Your task to perform on an android device: Find coffee shops on Maps Image 0: 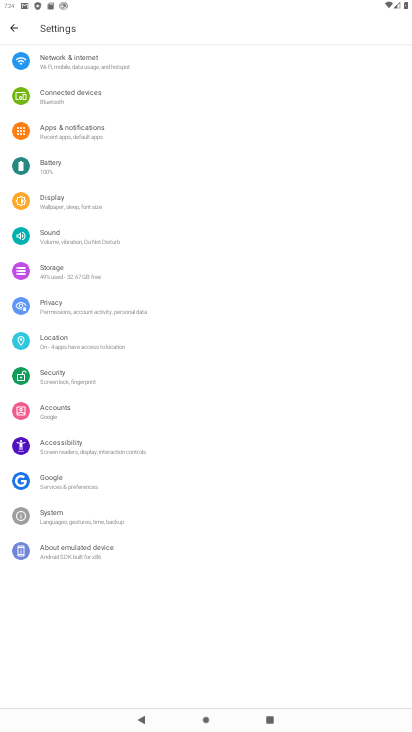
Step 0: press home button
Your task to perform on an android device: Find coffee shops on Maps Image 1: 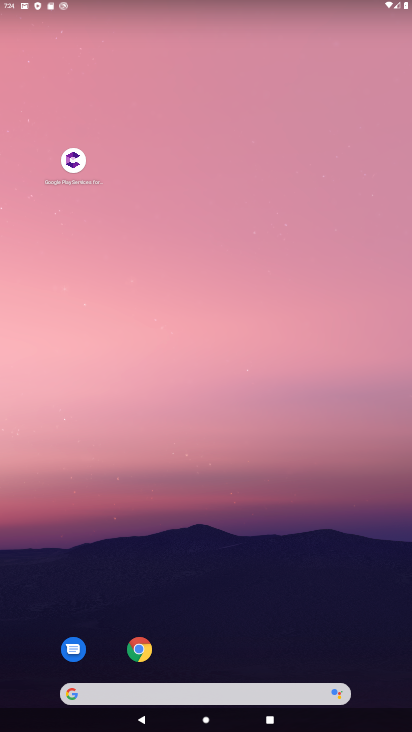
Step 1: drag from (263, 675) to (276, 8)
Your task to perform on an android device: Find coffee shops on Maps Image 2: 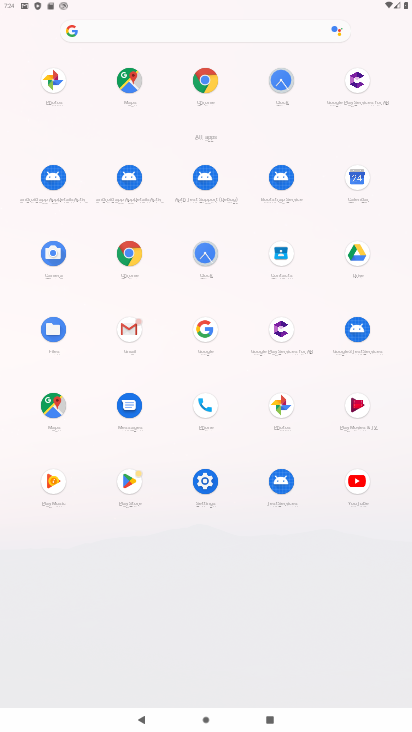
Step 2: click (74, 406)
Your task to perform on an android device: Find coffee shops on Maps Image 3: 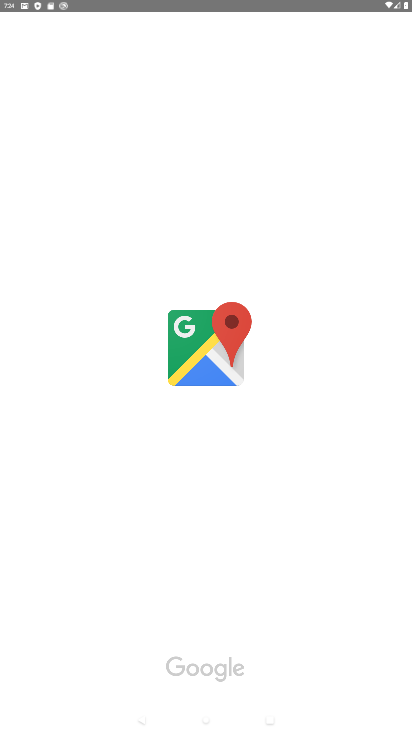
Step 3: click (74, 406)
Your task to perform on an android device: Find coffee shops on Maps Image 4: 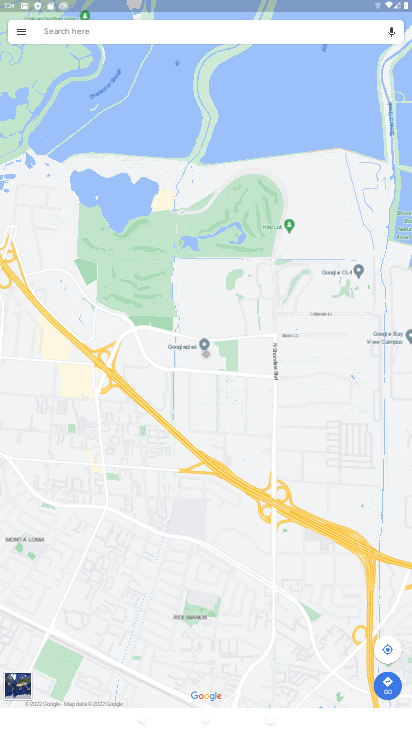
Step 4: click (152, 30)
Your task to perform on an android device: Find coffee shops on Maps Image 5: 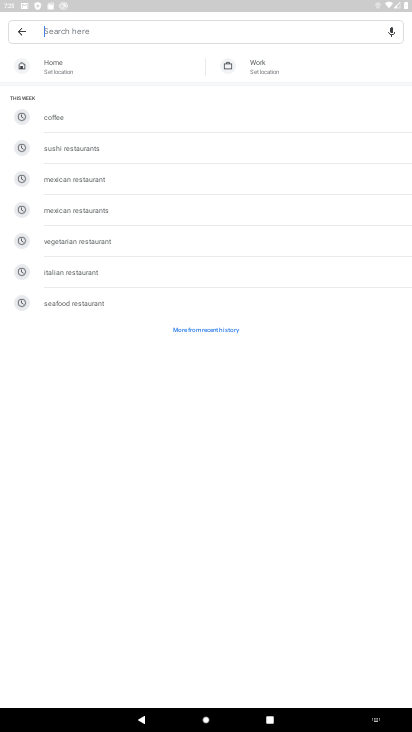
Step 5: click (64, 115)
Your task to perform on an android device: Find coffee shops on Maps Image 6: 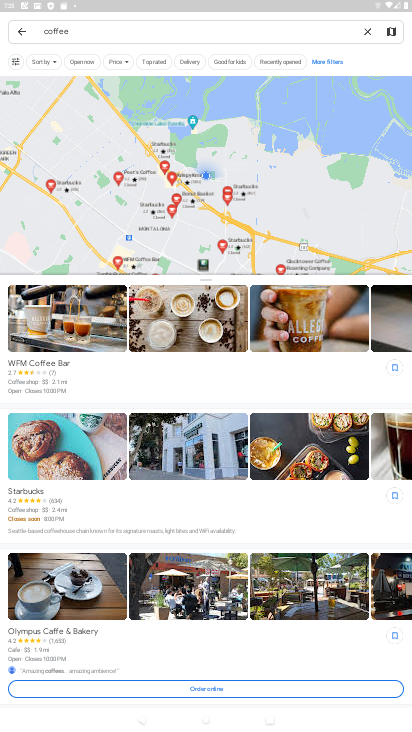
Step 6: task complete